Your task to perform on an android device: What is the recent news? Image 0: 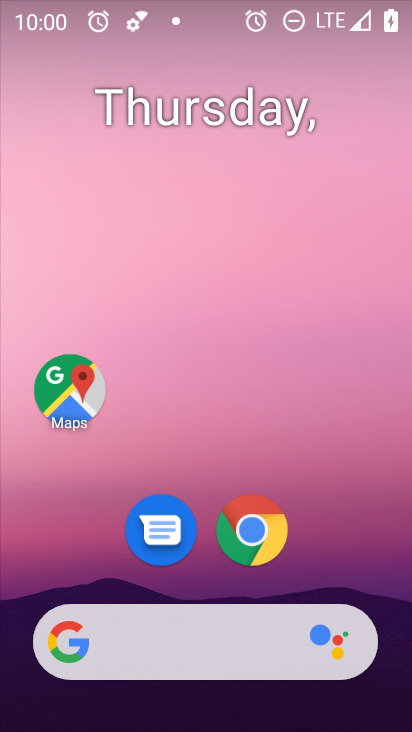
Step 0: drag from (360, 512) to (214, 20)
Your task to perform on an android device: What is the recent news? Image 1: 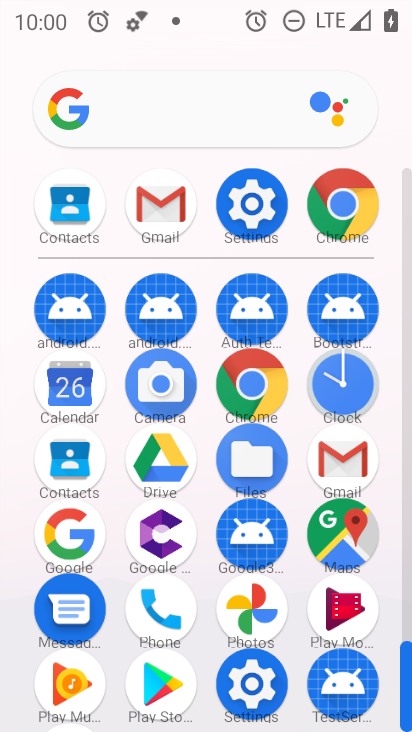
Step 1: drag from (26, 572) to (15, 272)
Your task to perform on an android device: What is the recent news? Image 2: 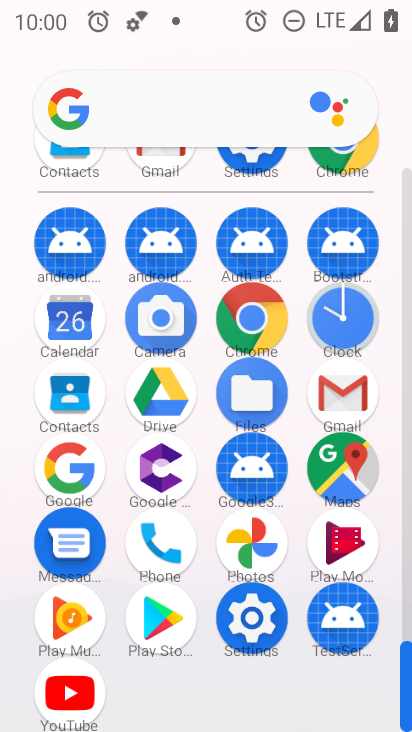
Step 2: click (247, 311)
Your task to perform on an android device: What is the recent news? Image 3: 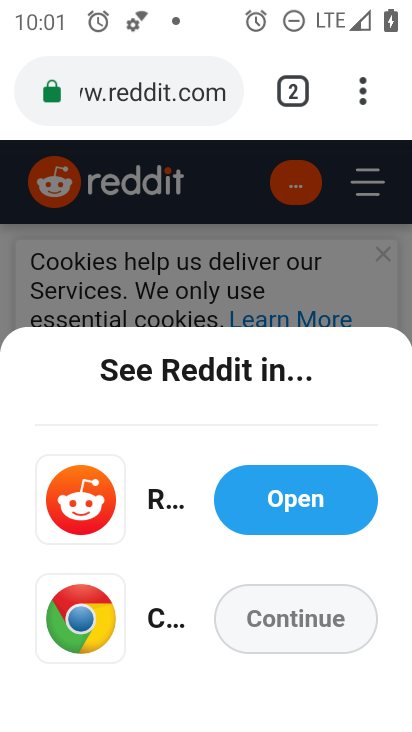
Step 3: click (143, 80)
Your task to perform on an android device: What is the recent news? Image 4: 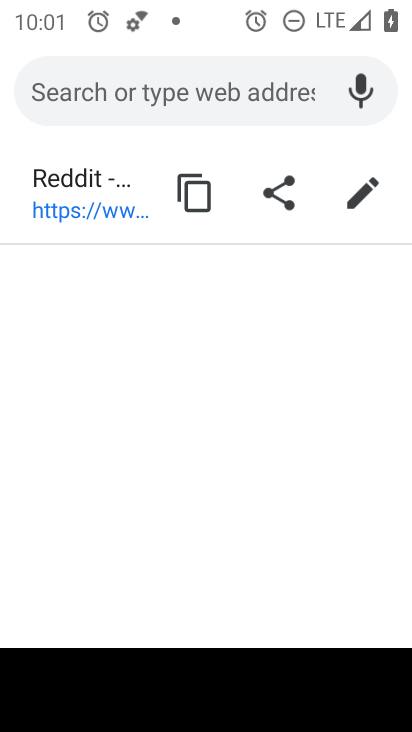
Step 4: type "What is the recent news?"
Your task to perform on an android device: What is the recent news? Image 5: 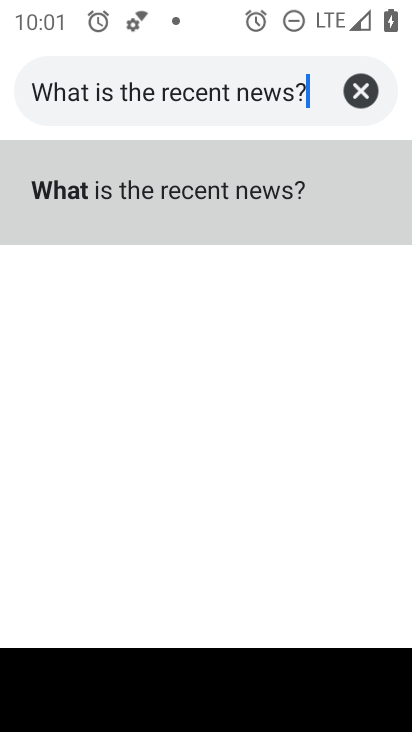
Step 5: type ""
Your task to perform on an android device: What is the recent news? Image 6: 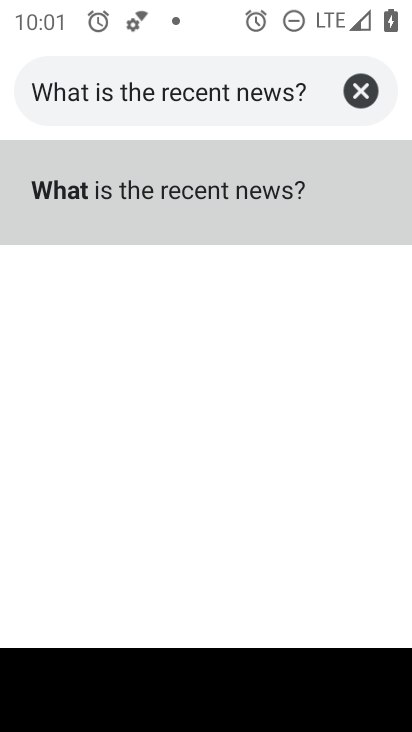
Step 6: click (82, 195)
Your task to perform on an android device: What is the recent news? Image 7: 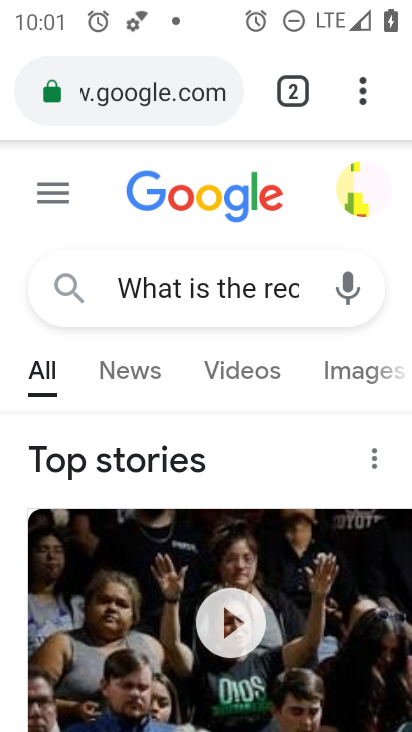
Step 7: task complete